Your task to perform on an android device: Open ESPN.com Image 0: 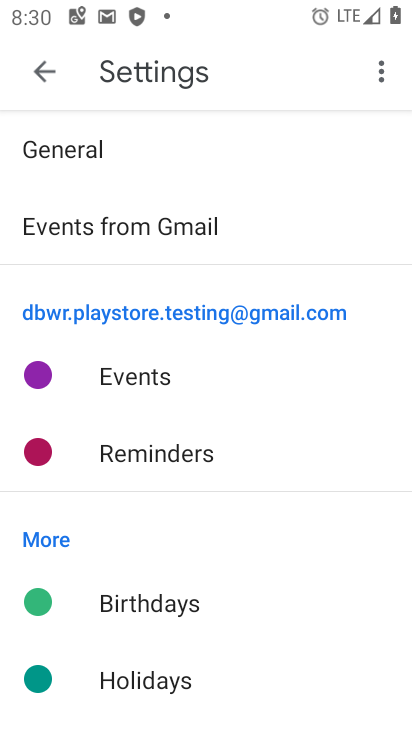
Step 0: press home button
Your task to perform on an android device: Open ESPN.com Image 1: 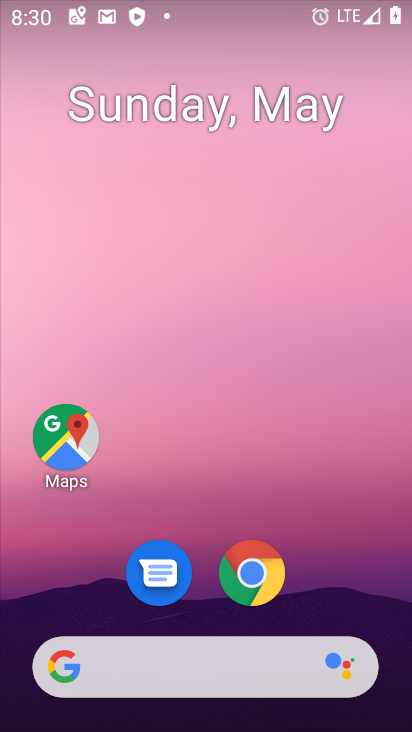
Step 1: click (249, 653)
Your task to perform on an android device: Open ESPN.com Image 2: 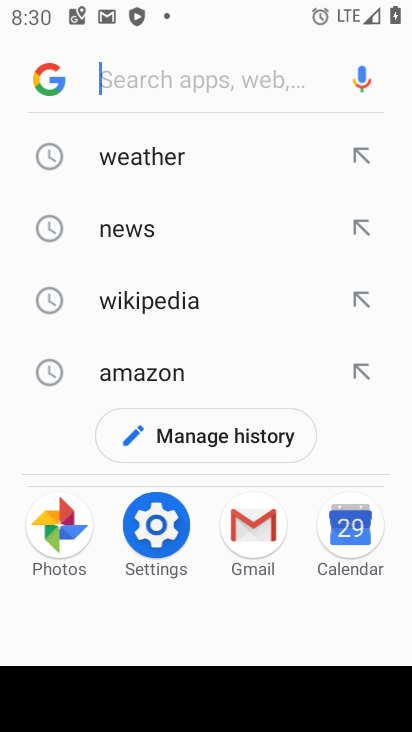
Step 2: type "espn.com"
Your task to perform on an android device: Open ESPN.com Image 3: 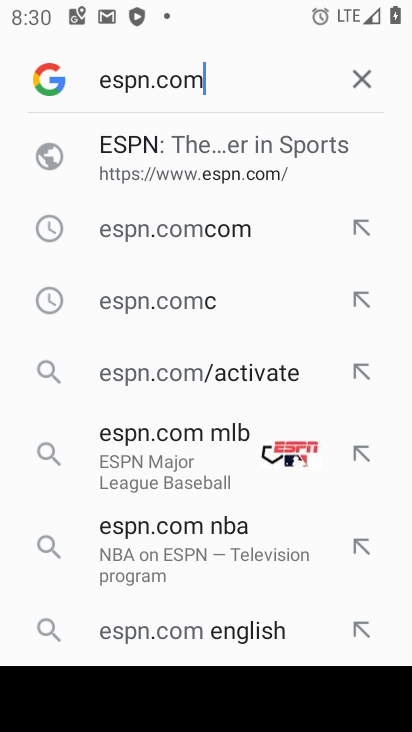
Step 3: click (125, 158)
Your task to perform on an android device: Open ESPN.com Image 4: 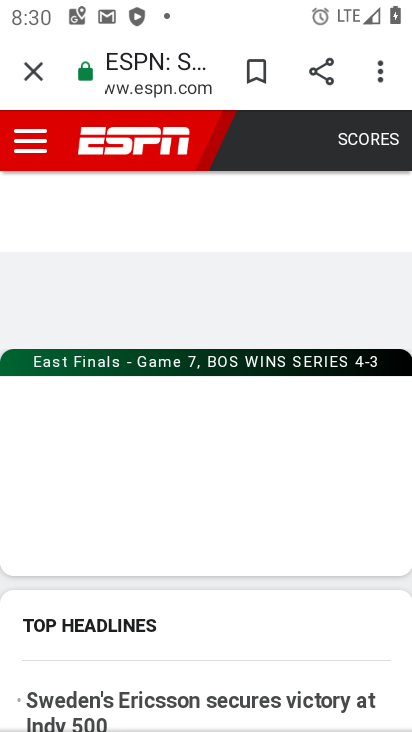
Step 4: task complete